Your task to perform on an android device: Open maps Image 0: 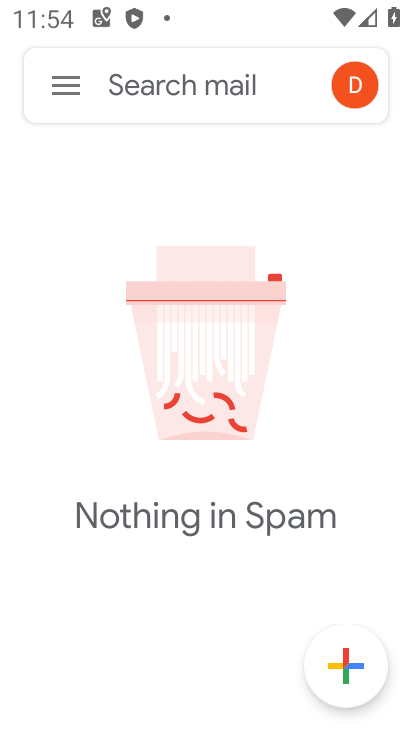
Step 0: press home button
Your task to perform on an android device: Open maps Image 1: 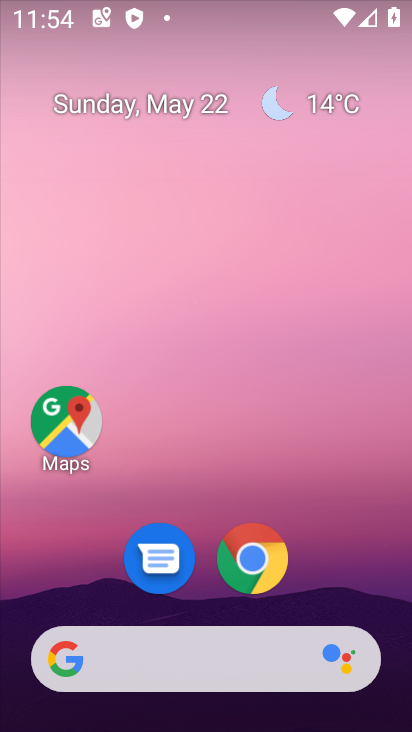
Step 1: click (62, 432)
Your task to perform on an android device: Open maps Image 2: 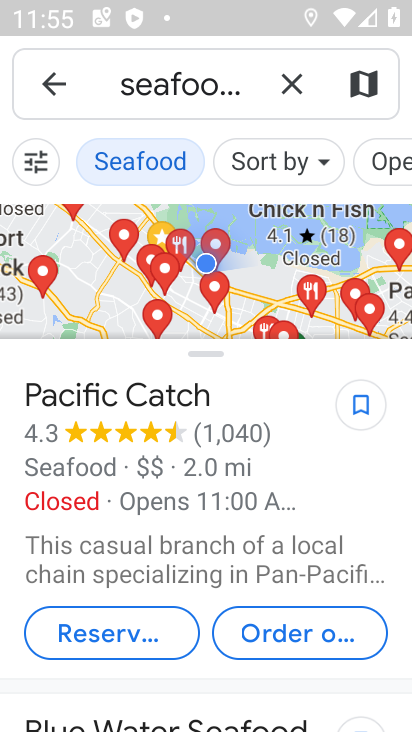
Step 2: task complete